Your task to perform on an android device: set the stopwatch Image 0: 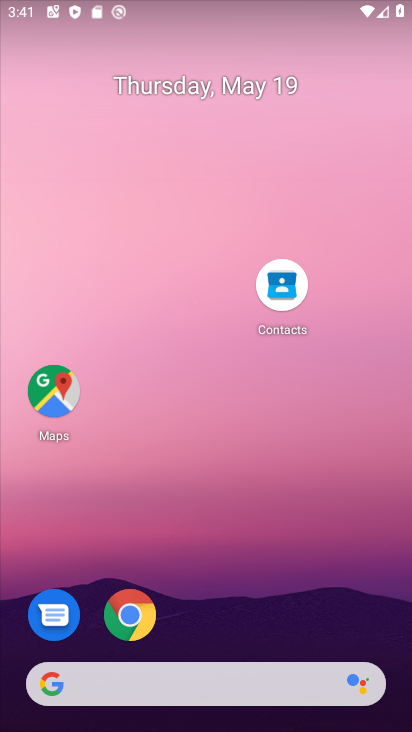
Step 0: drag from (241, 718) to (267, 193)
Your task to perform on an android device: set the stopwatch Image 1: 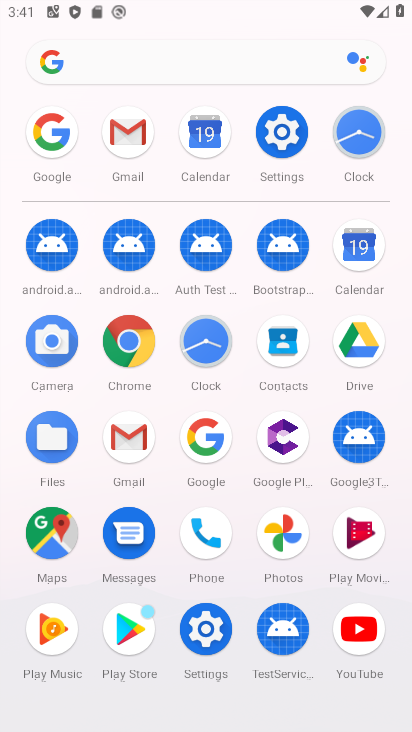
Step 1: click (186, 370)
Your task to perform on an android device: set the stopwatch Image 2: 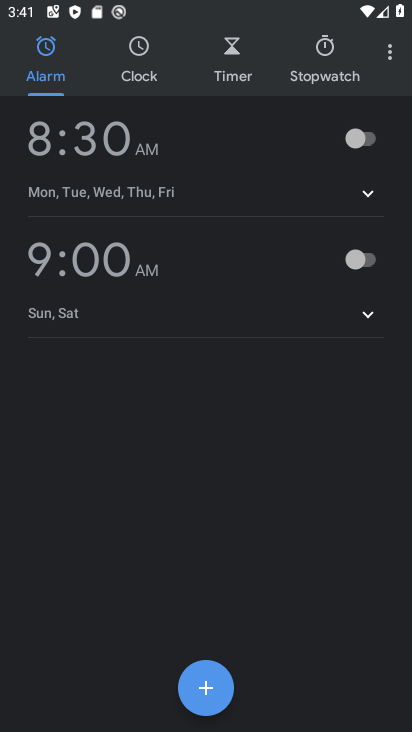
Step 2: click (314, 72)
Your task to perform on an android device: set the stopwatch Image 3: 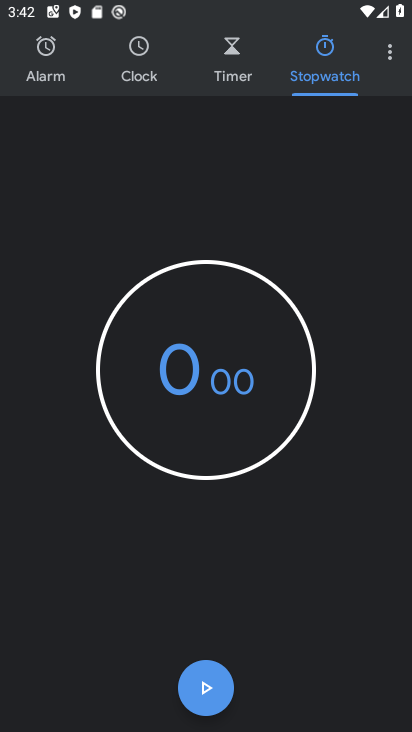
Step 3: task complete